Your task to perform on an android device: toggle priority inbox in the gmail app Image 0: 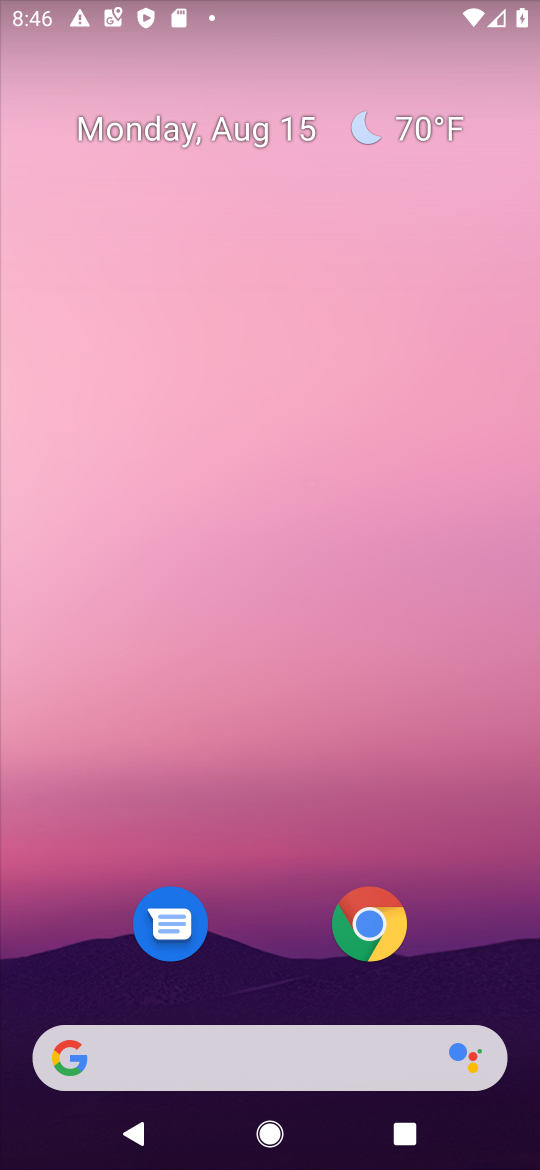
Step 0: drag from (491, 970) to (431, 428)
Your task to perform on an android device: toggle priority inbox in the gmail app Image 1: 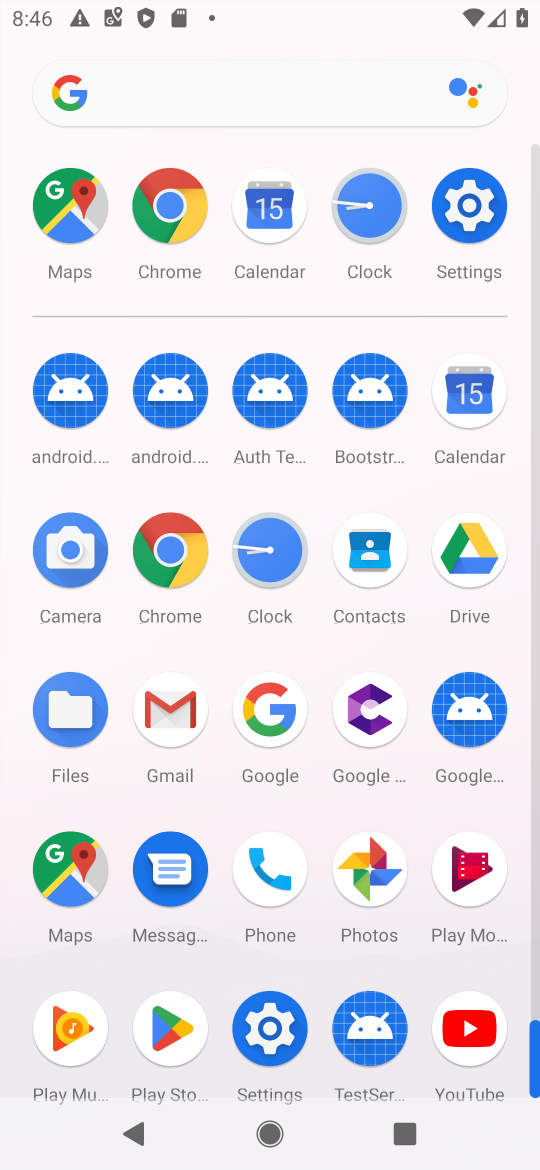
Step 1: click (167, 715)
Your task to perform on an android device: toggle priority inbox in the gmail app Image 2: 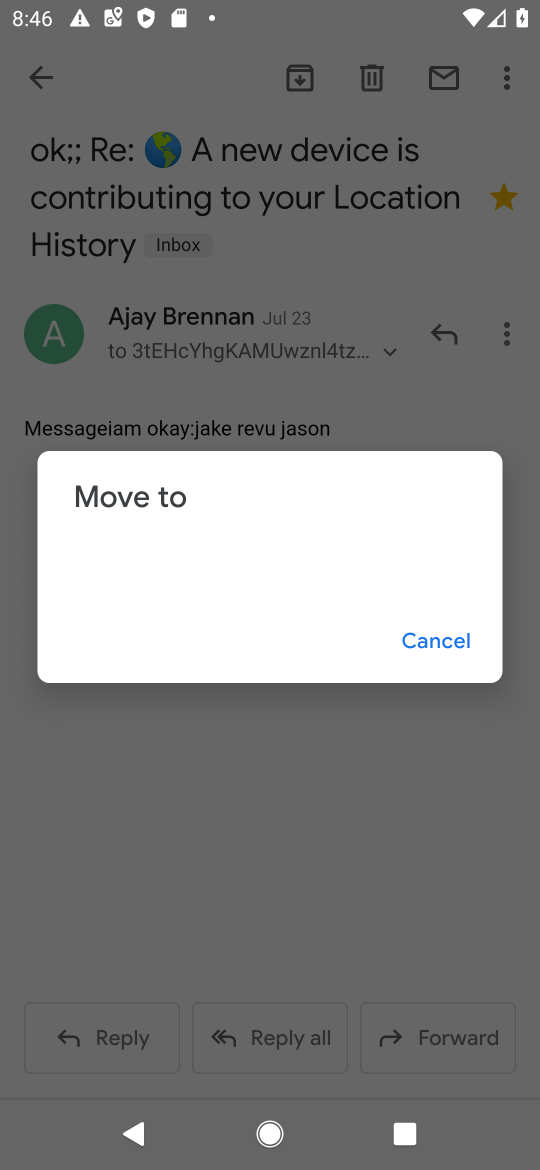
Step 2: click (430, 635)
Your task to perform on an android device: toggle priority inbox in the gmail app Image 3: 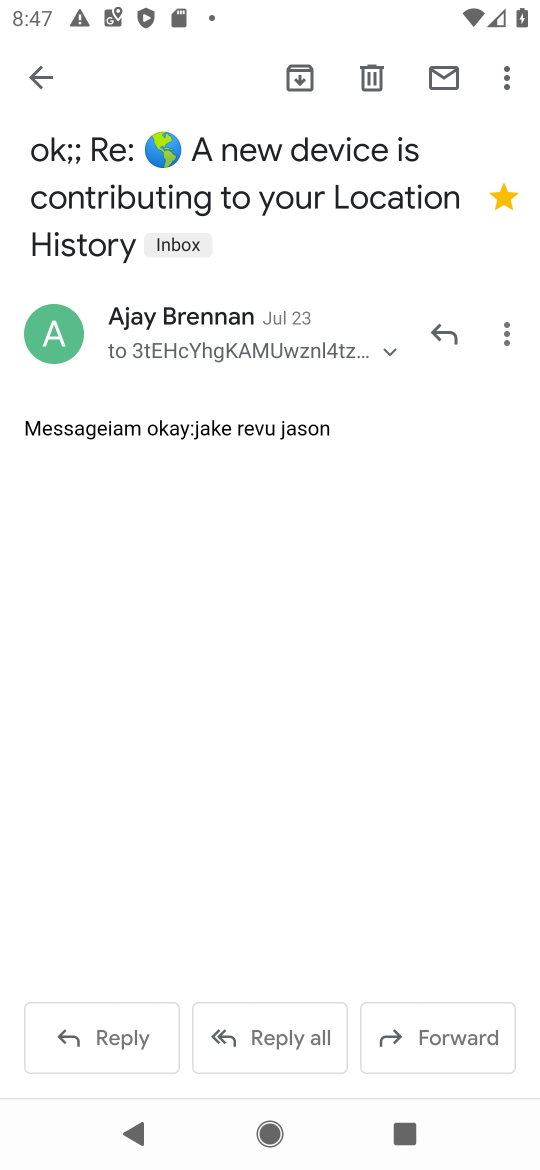
Step 3: press back button
Your task to perform on an android device: toggle priority inbox in the gmail app Image 4: 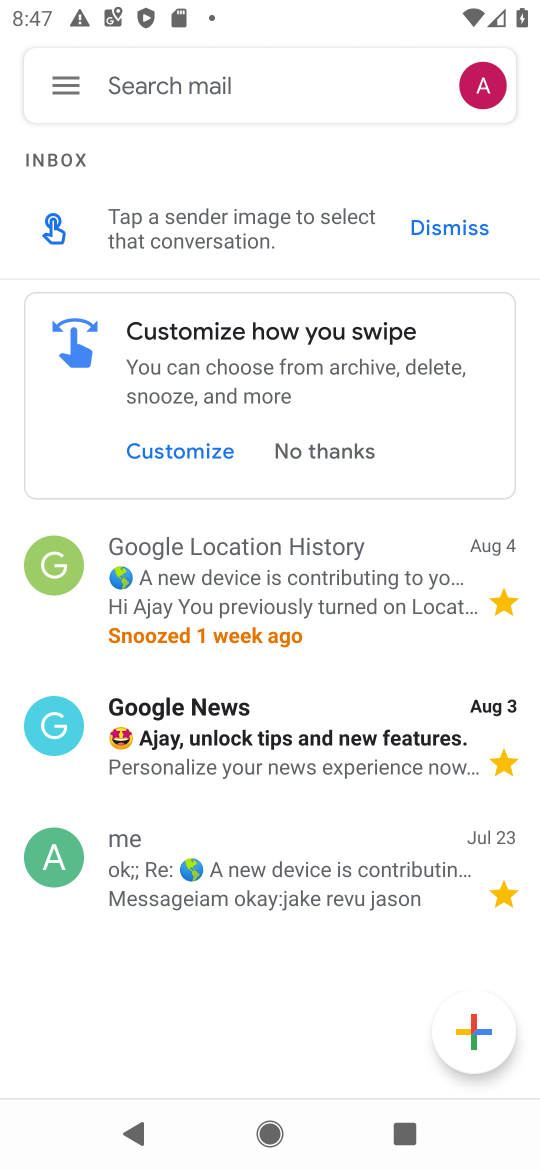
Step 4: click (59, 88)
Your task to perform on an android device: toggle priority inbox in the gmail app Image 5: 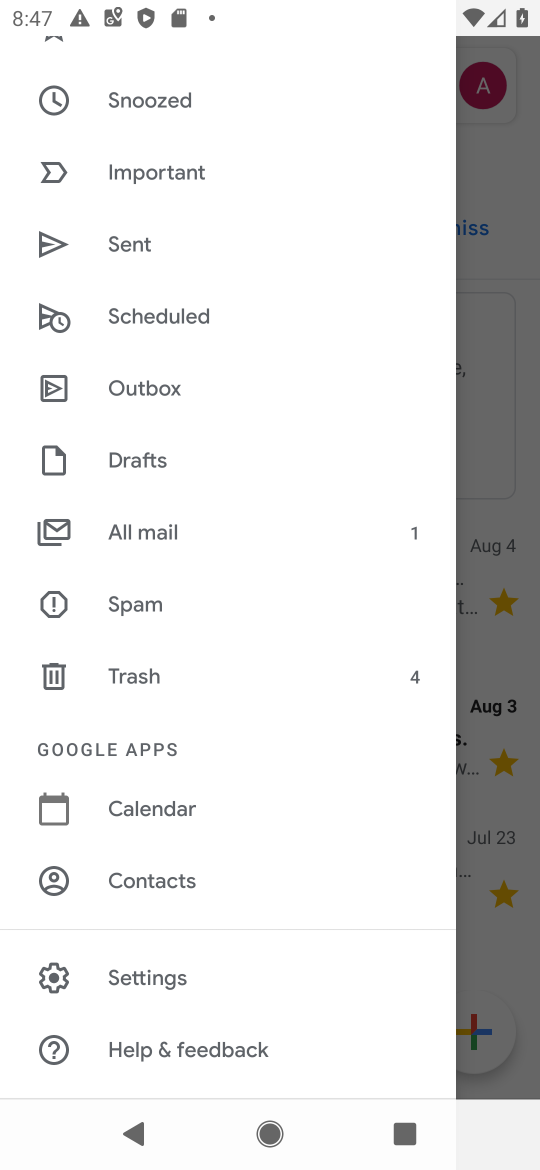
Step 5: click (147, 972)
Your task to perform on an android device: toggle priority inbox in the gmail app Image 6: 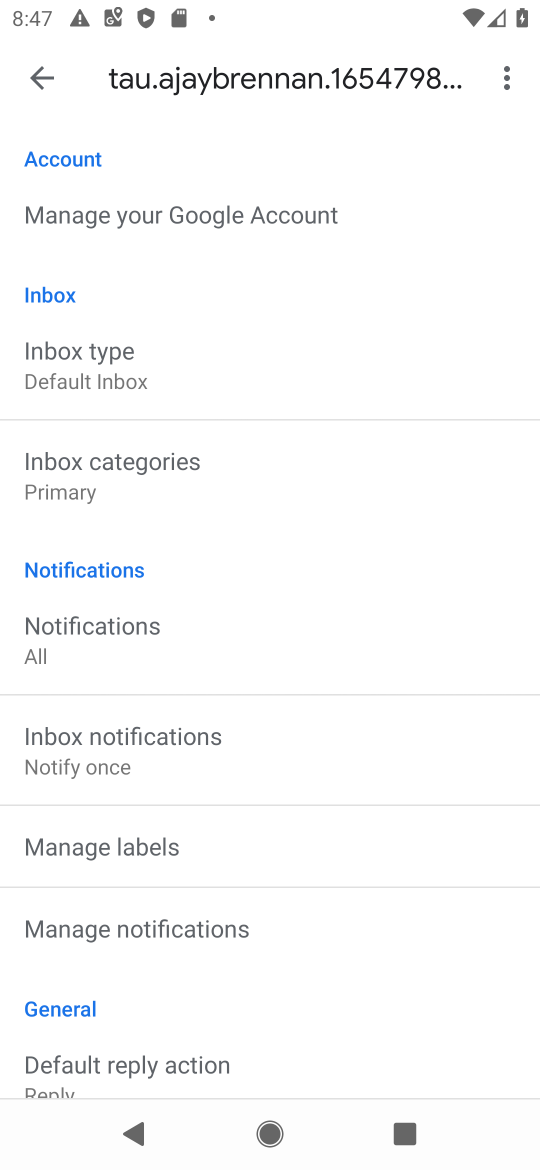
Step 6: click (70, 370)
Your task to perform on an android device: toggle priority inbox in the gmail app Image 7: 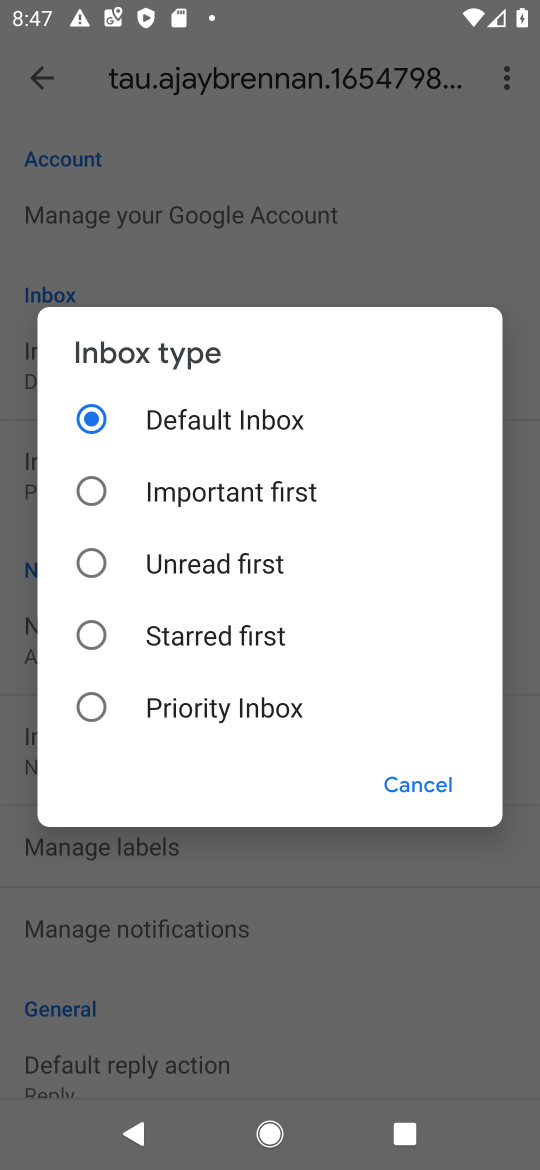
Step 7: click (94, 711)
Your task to perform on an android device: toggle priority inbox in the gmail app Image 8: 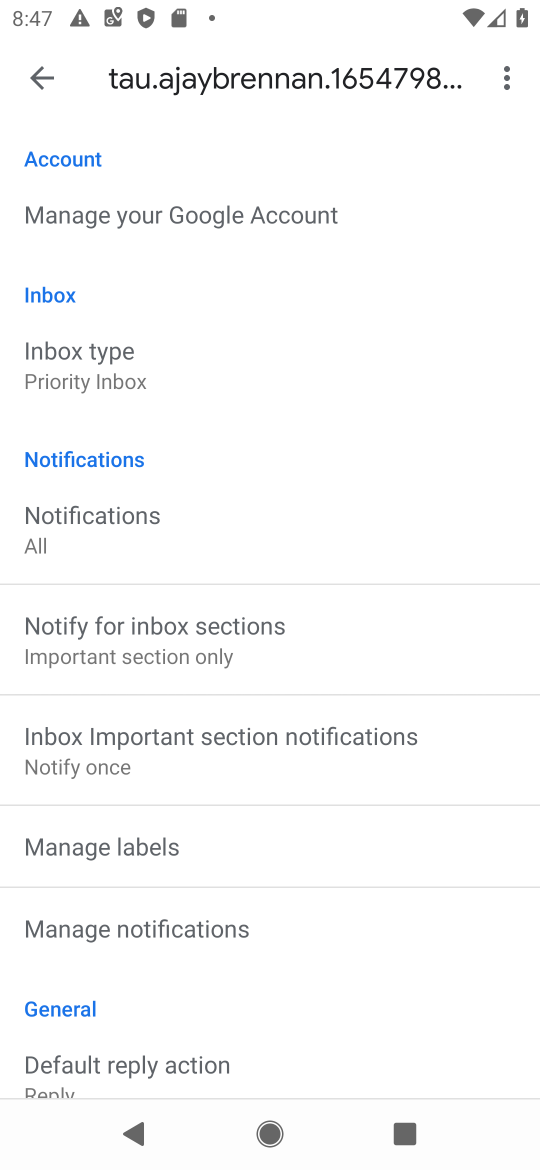
Step 8: task complete